Your task to perform on an android device: Search for asus zenbook on costco.com, select the first entry, and add it to the cart. Image 0: 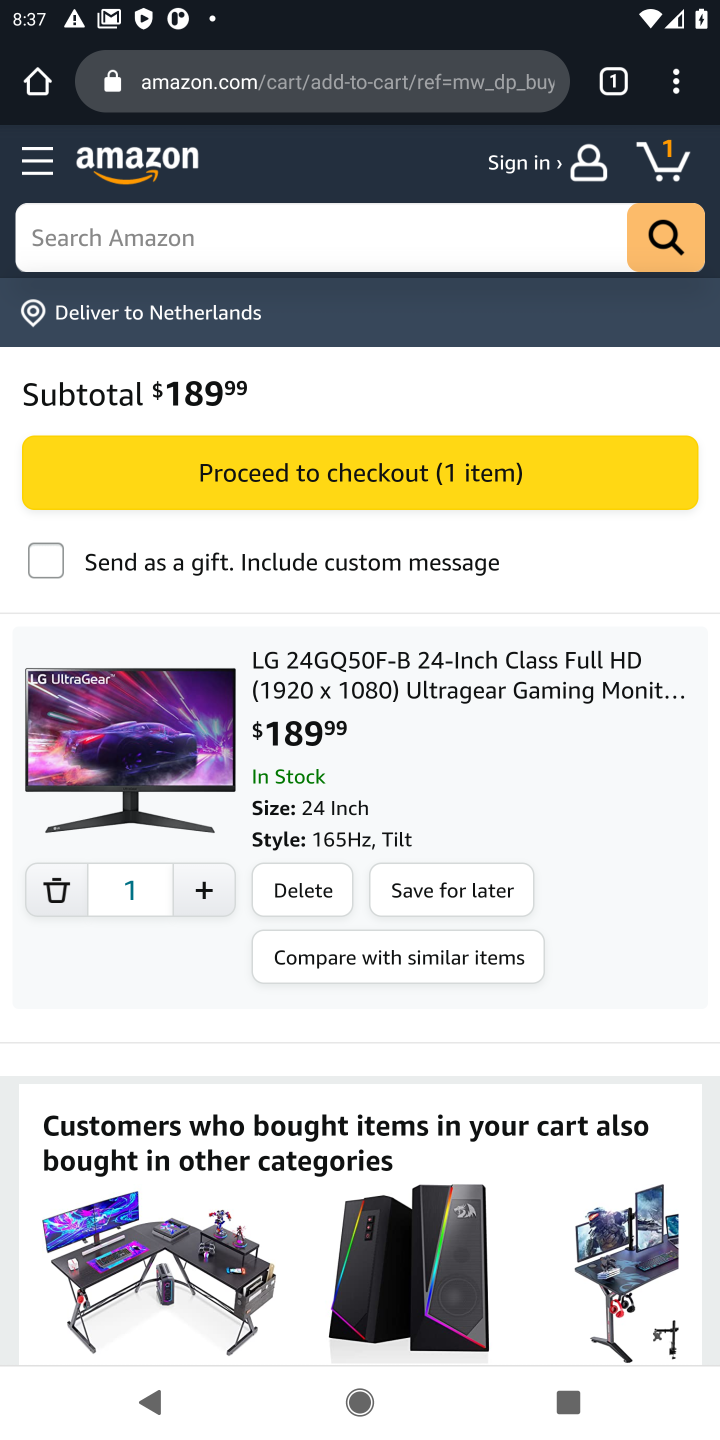
Step 0: click (241, 92)
Your task to perform on an android device: Search for asus zenbook on costco.com, select the first entry, and add it to the cart. Image 1: 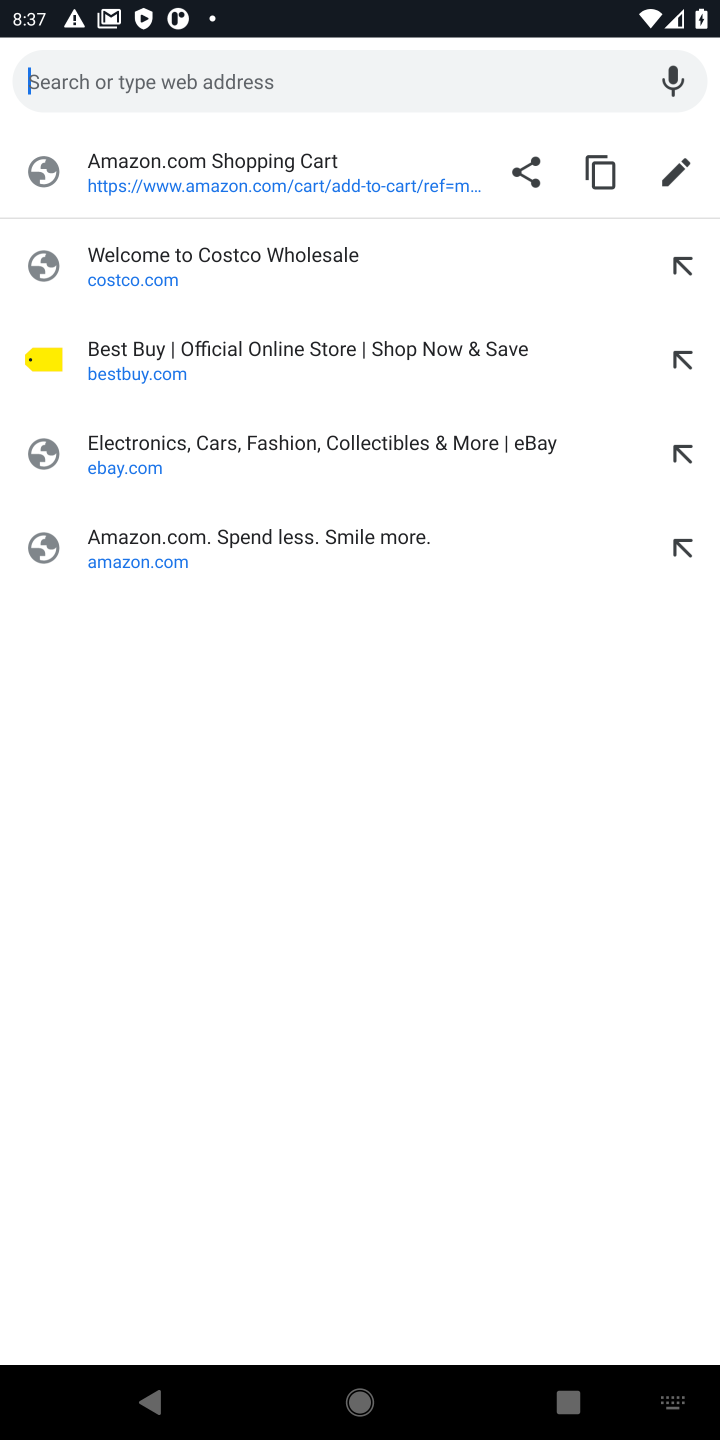
Step 1: type "costco.com"
Your task to perform on an android device: Search for asus zenbook on costco.com, select the first entry, and add it to the cart. Image 2: 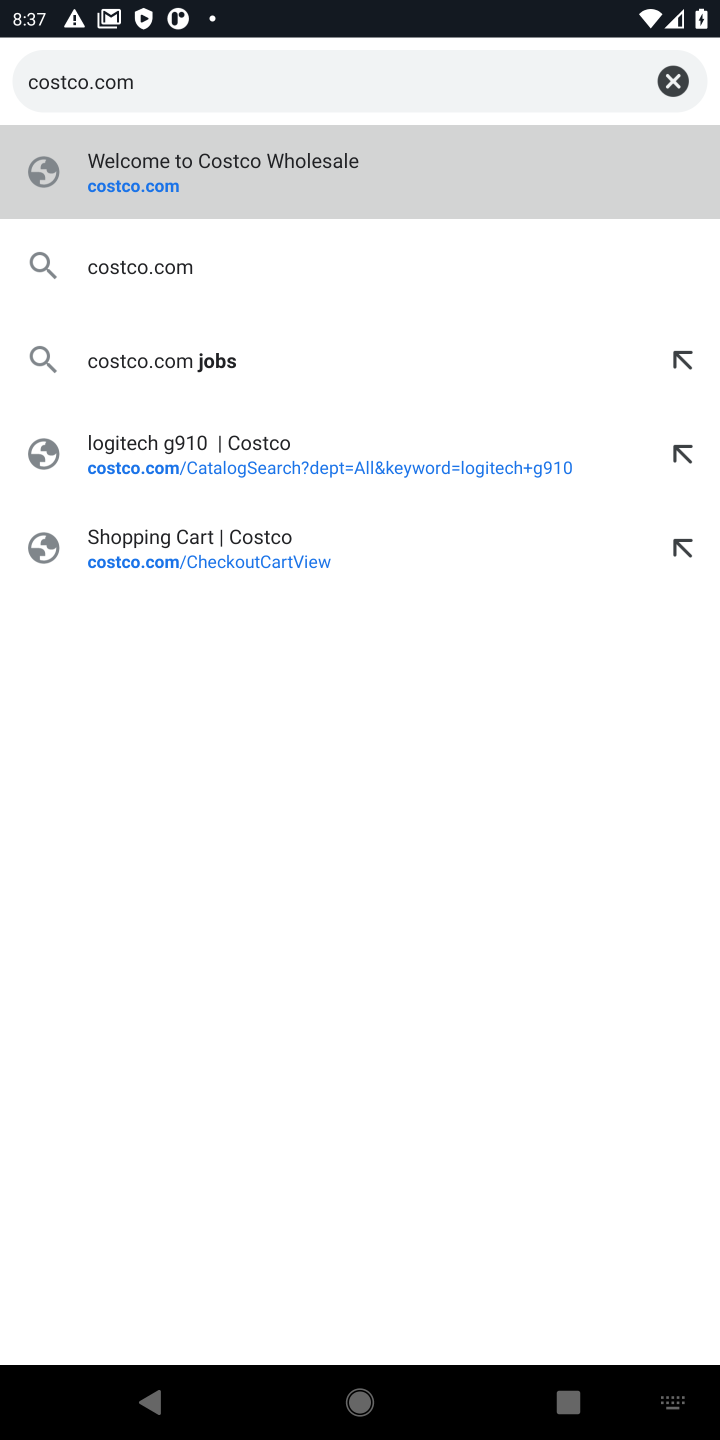
Step 2: click (92, 186)
Your task to perform on an android device: Search for asus zenbook on costco.com, select the first entry, and add it to the cart. Image 3: 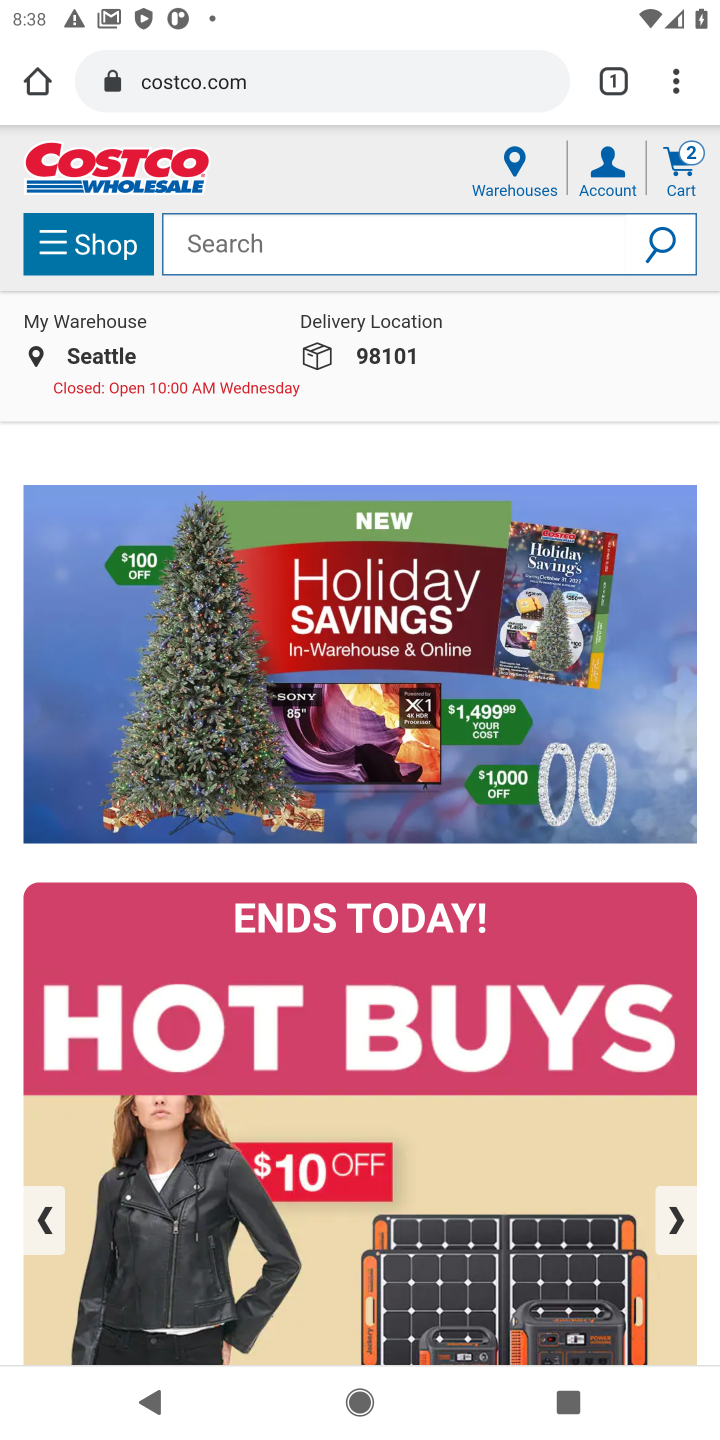
Step 3: click (260, 238)
Your task to perform on an android device: Search for asus zenbook on costco.com, select the first entry, and add it to the cart. Image 4: 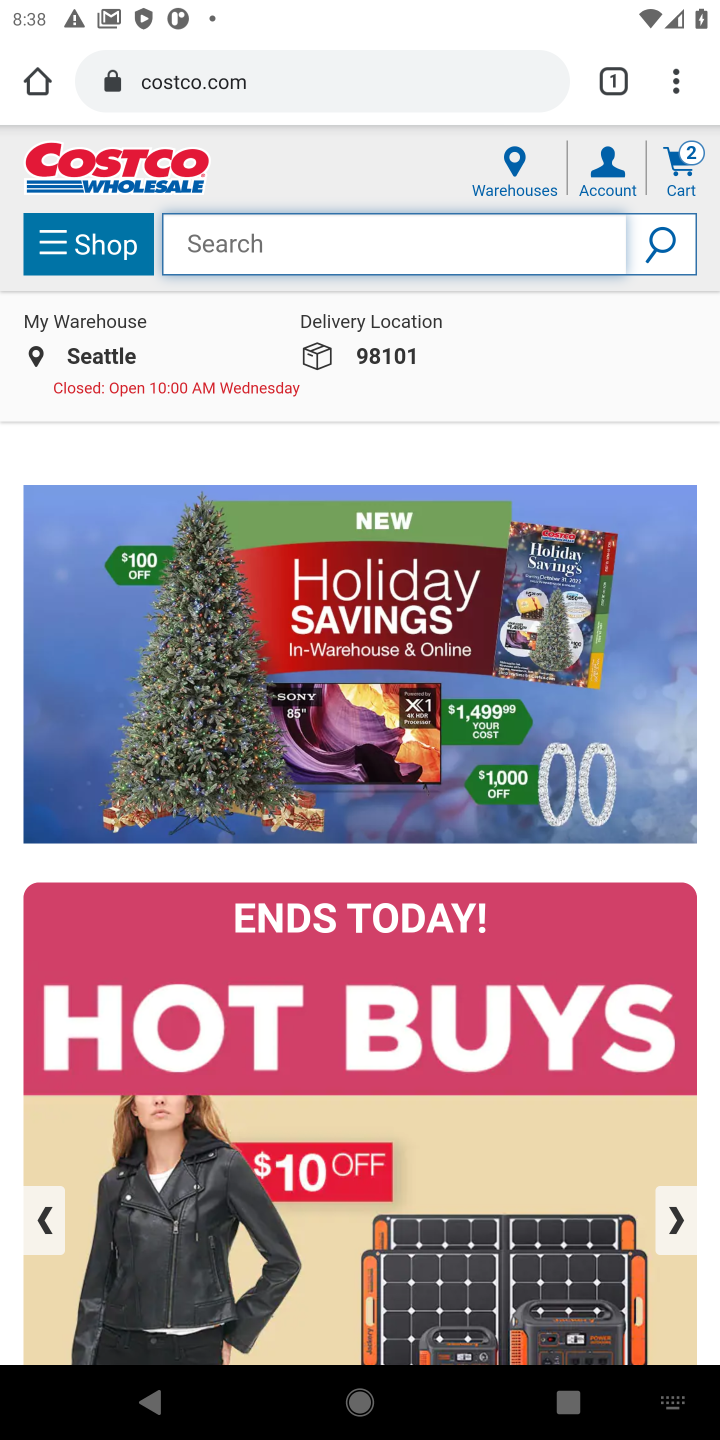
Step 4: type "asus zenbook "
Your task to perform on an android device: Search for asus zenbook on costco.com, select the first entry, and add it to the cart. Image 5: 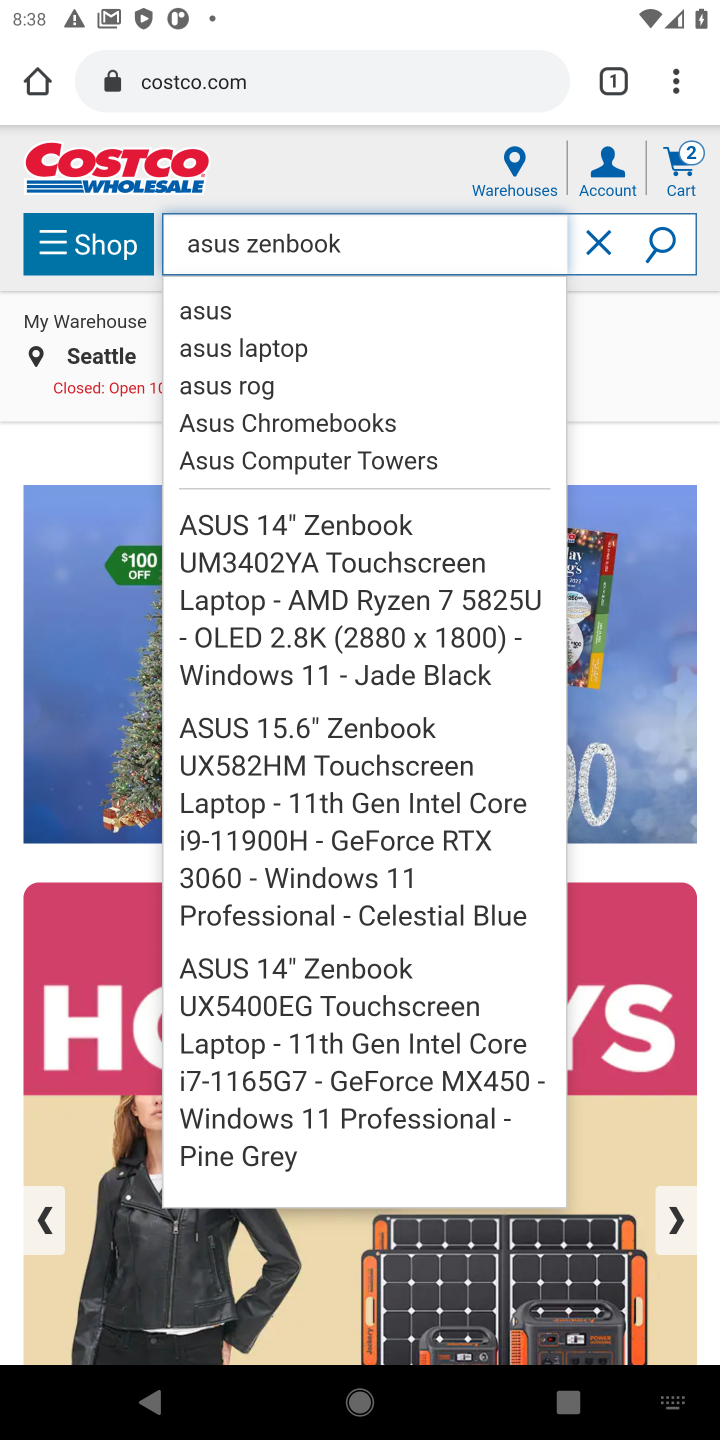
Step 5: click (651, 235)
Your task to perform on an android device: Search for asus zenbook on costco.com, select the first entry, and add it to the cart. Image 6: 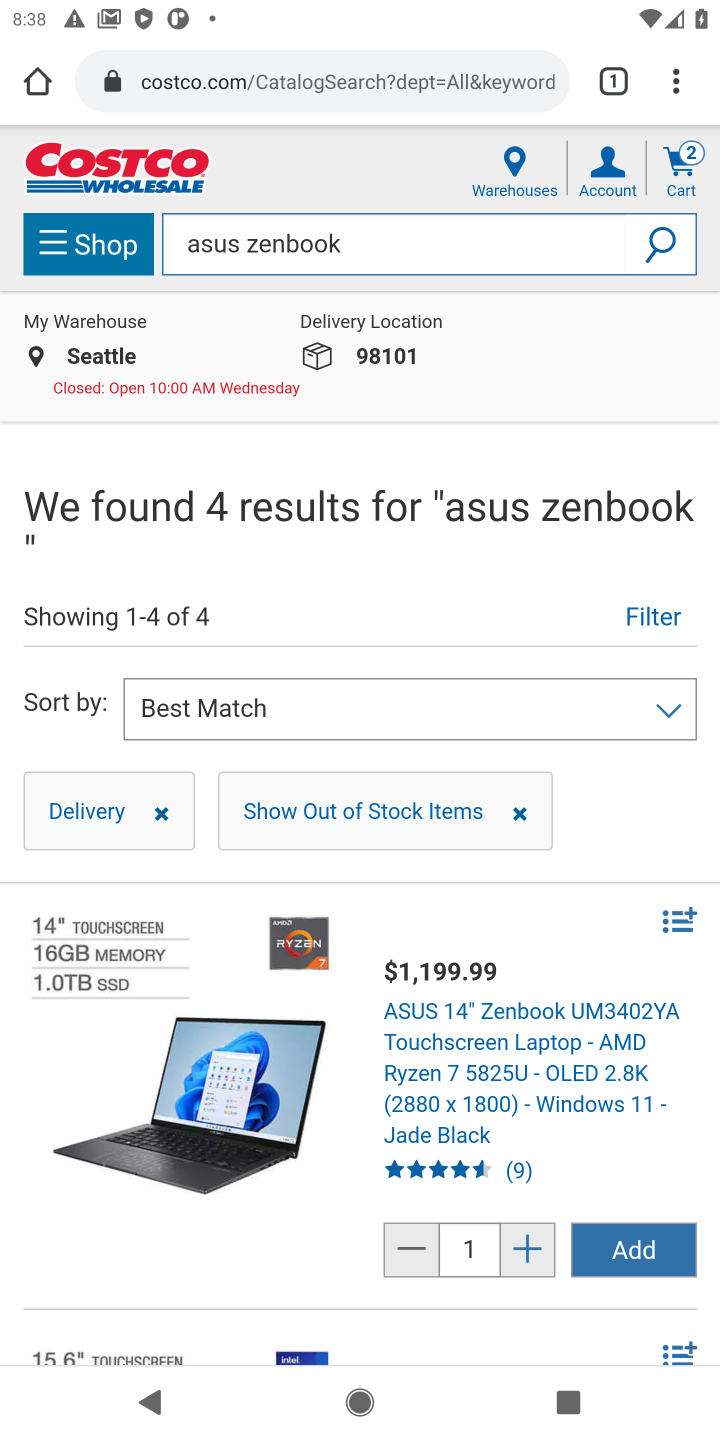
Step 6: click (412, 1076)
Your task to perform on an android device: Search for asus zenbook on costco.com, select the first entry, and add it to the cart. Image 7: 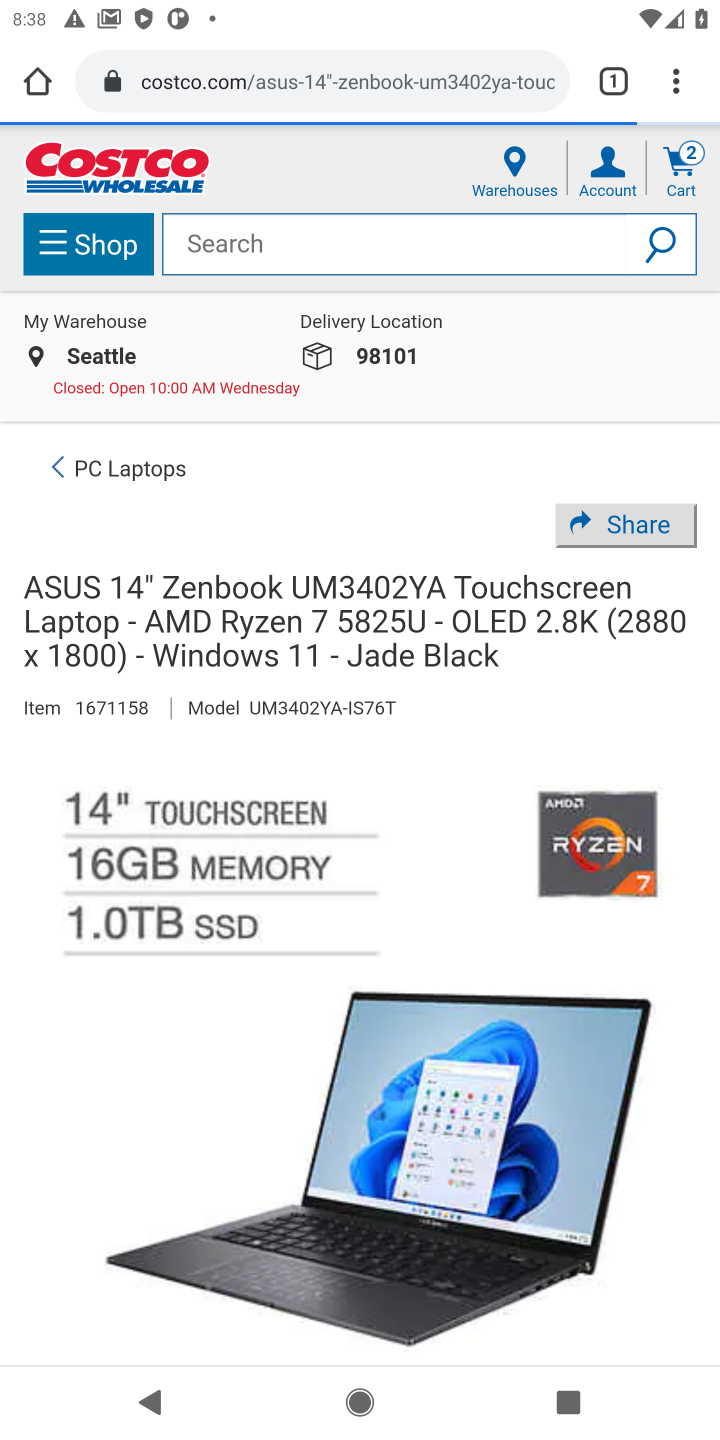
Step 7: drag from (246, 1108) to (213, 530)
Your task to perform on an android device: Search for asus zenbook on costco.com, select the first entry, and add it to the cart. Image 8: 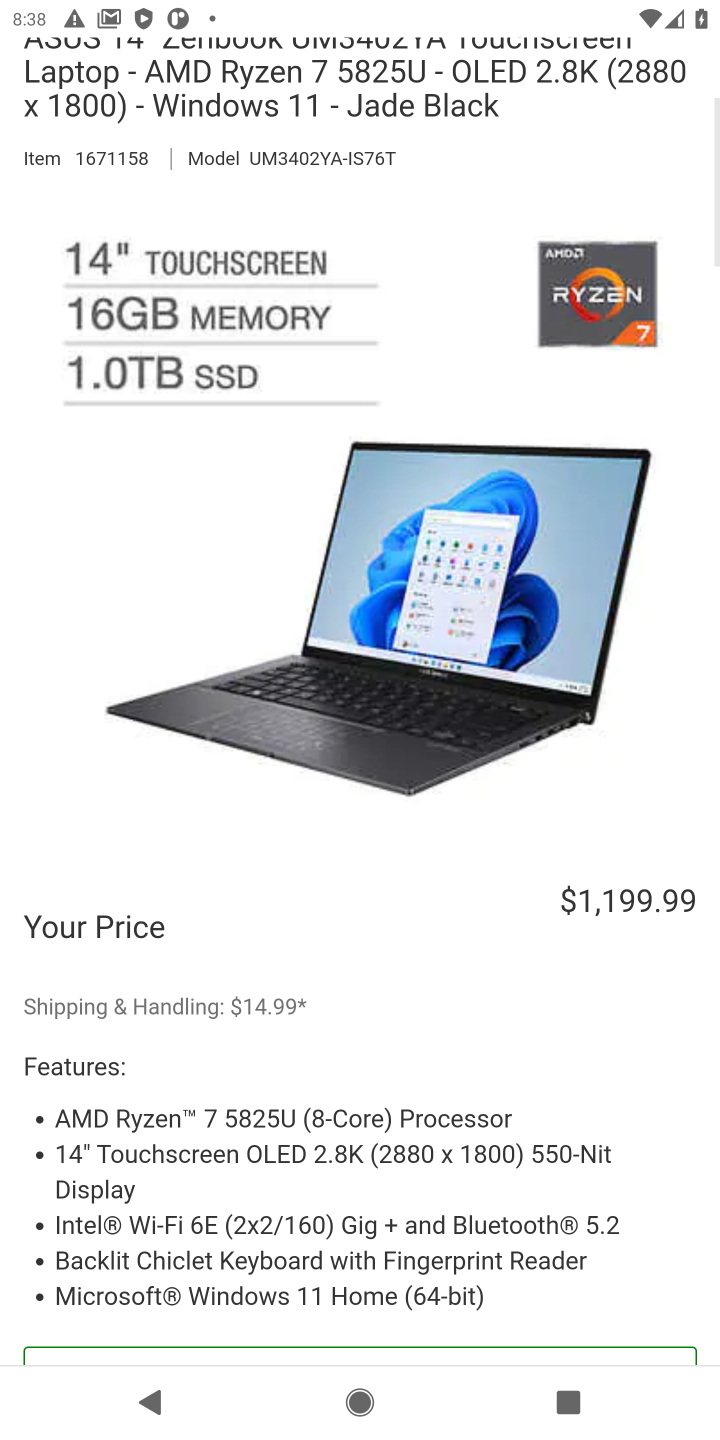
Step 8: drag from (278, 1053) to (224, 366)
Your task to perform on an android device: Search for asus zenbook on costco.com, select the first entry, and add it to the cart. Image 9: 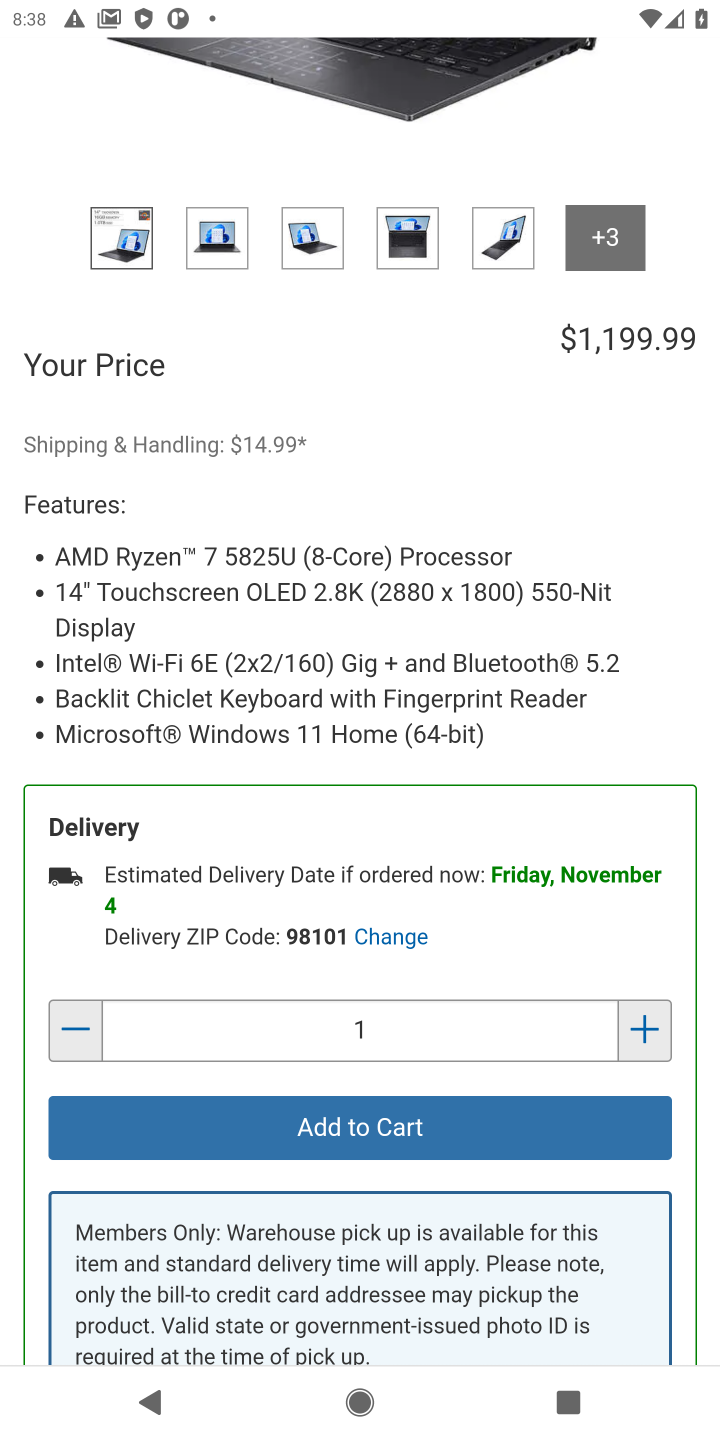
Step 9: click (320, 1123)
Your task to perform on an android device: Search for asus zenbook on costco.com, select the first entry, and add it to the cart. Image 10: 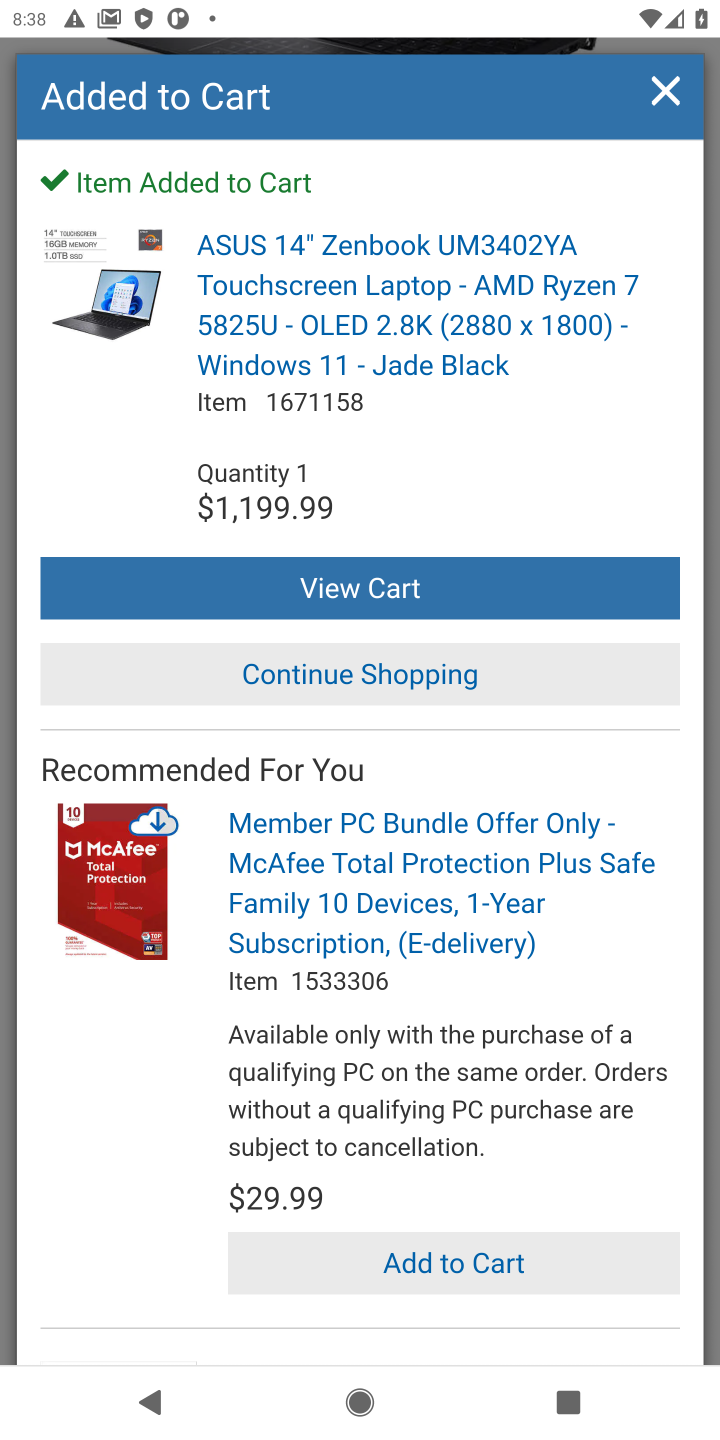
Step 10: task complete